Your task to perform on an android device: toggle airplane mode Image 0: 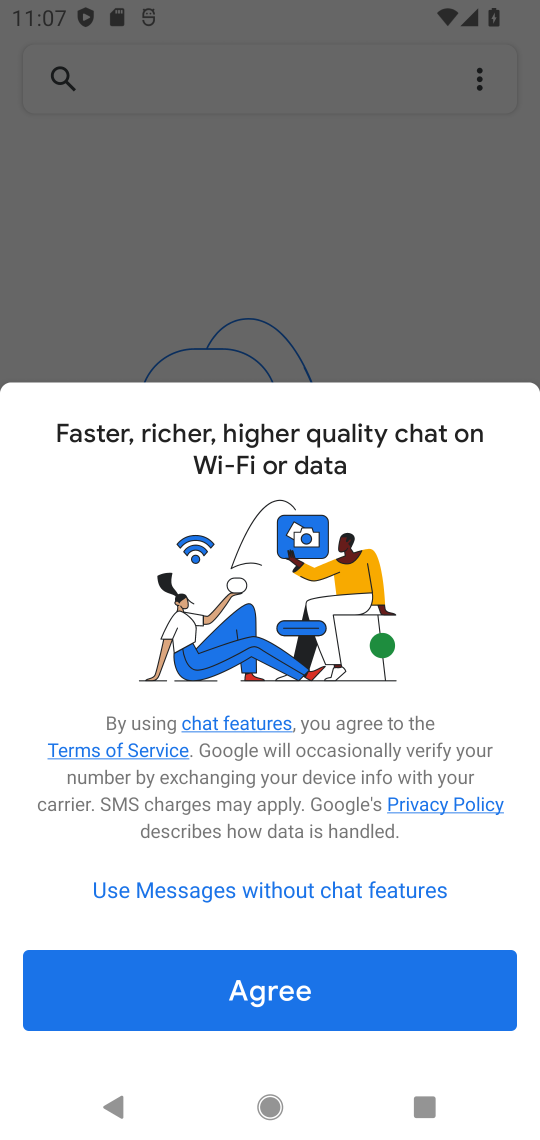
Step 0: press home button
Your task to perform on an android device: toggle airplane mode Image 1: 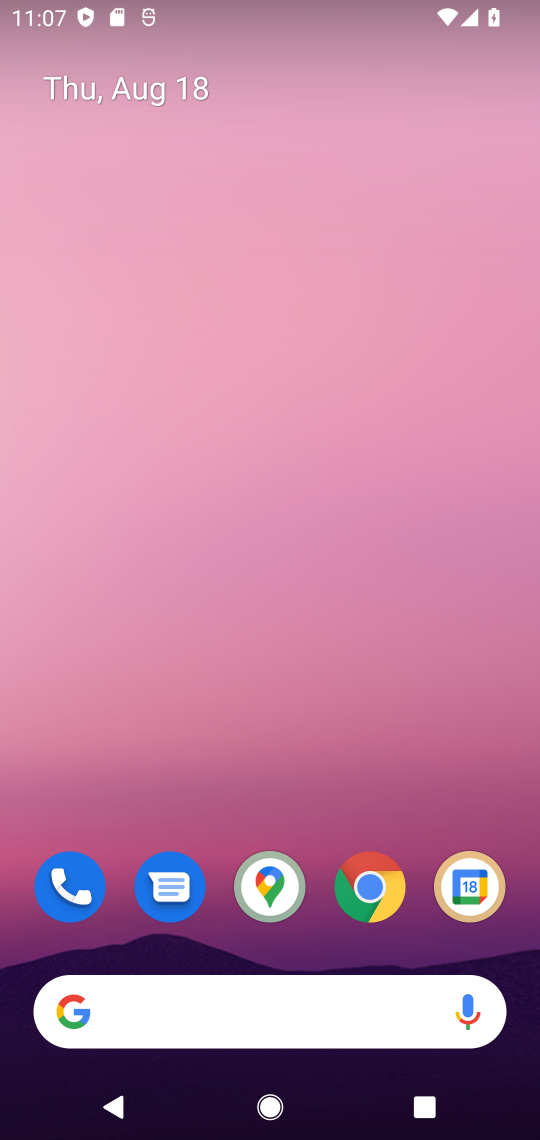
Step 1: task complete